Your task to perform on an android device: Open maps Image 0: 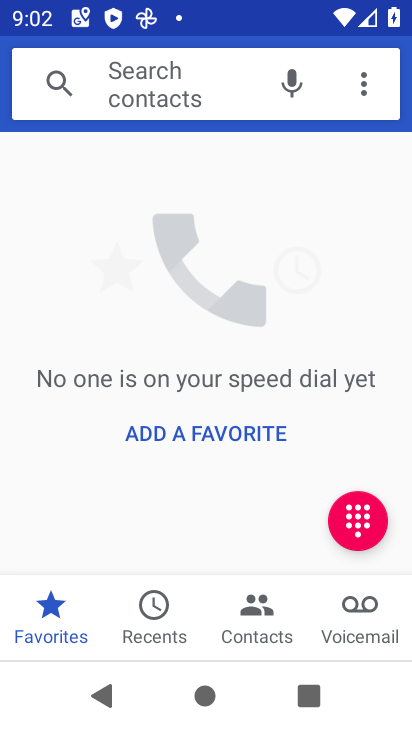
Step 0: drag from (228, 524) to (328, 231)
Your task to perform on an android device: Open maps Image 1: 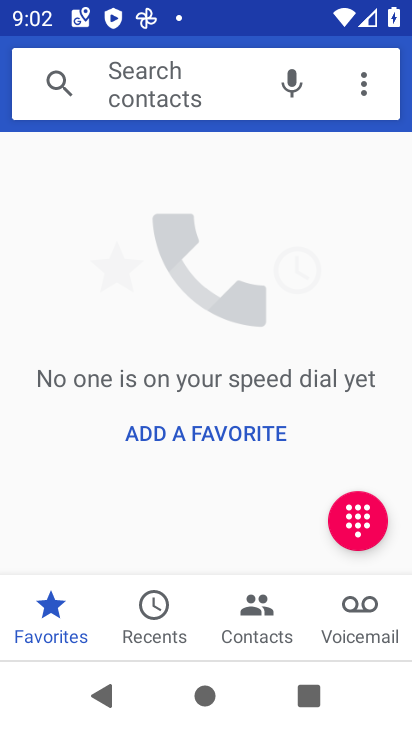
Step 1: press home button
Your task to perform on an android device: Open maps Image 2: 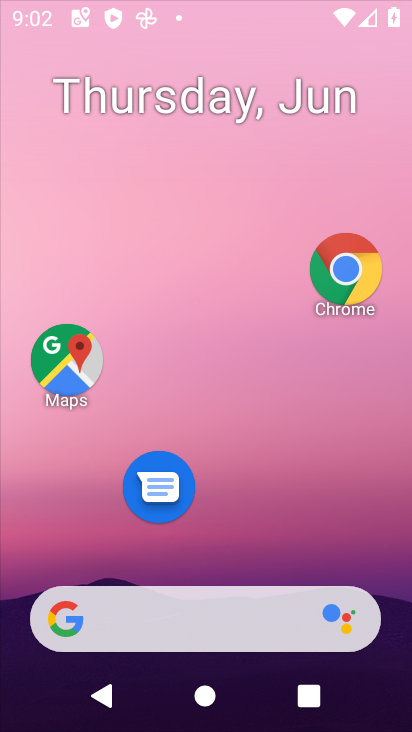
Step 2: drag from (213, 483) to (266, 290)
Your task to perform on an android device: Open maps Image 3: 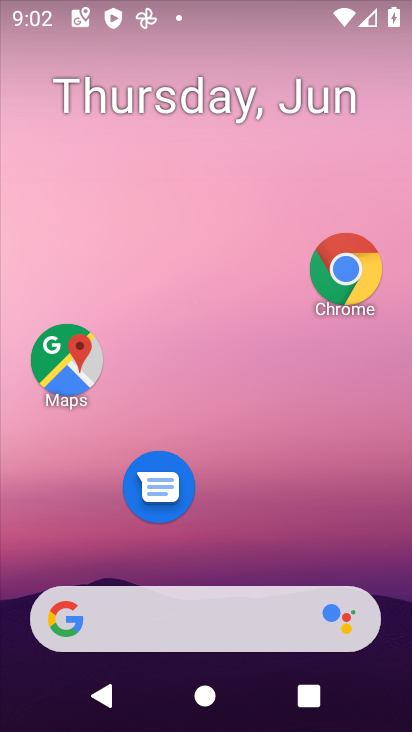
Step 3: drag from (219, 559) to (216, 89)
Your task to perform on an android device: Open maps Image 4: 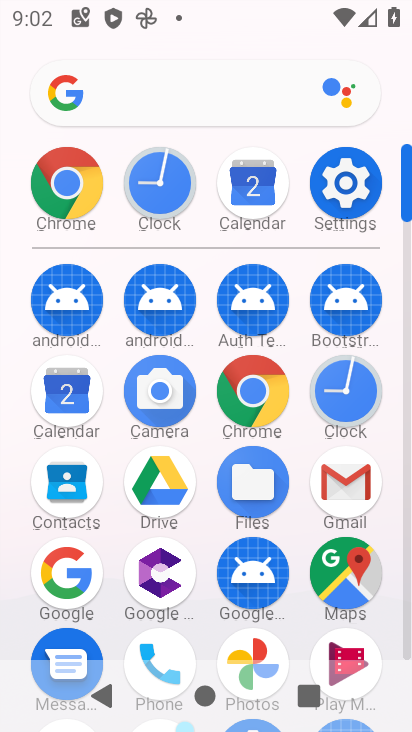
Step 4: drag from (207, 528) to (196, 161)
Your task to perform on an android device: Open maps Image 5: 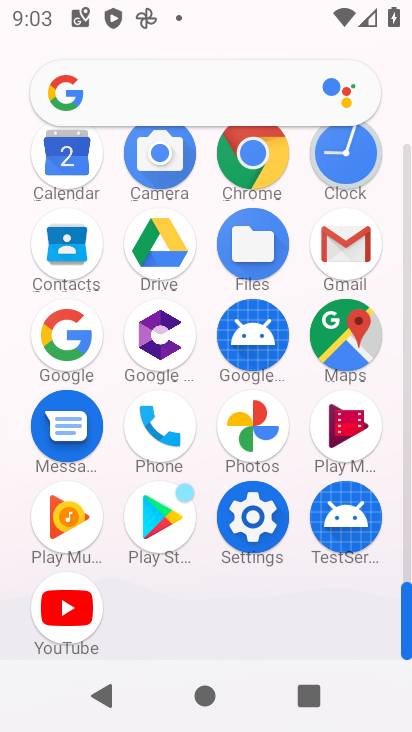
Step 5: click (352, 335)
Your task to perform on an android device: Open maps Image 6: 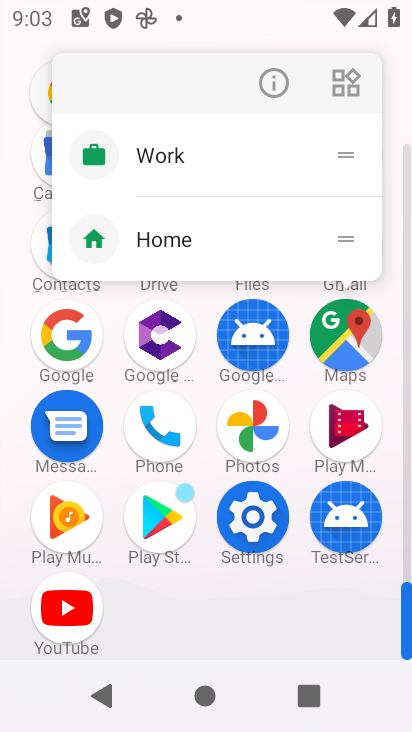
Step 6: click (256, 87)
Your task to perform on an android device: Open maps Image 7: 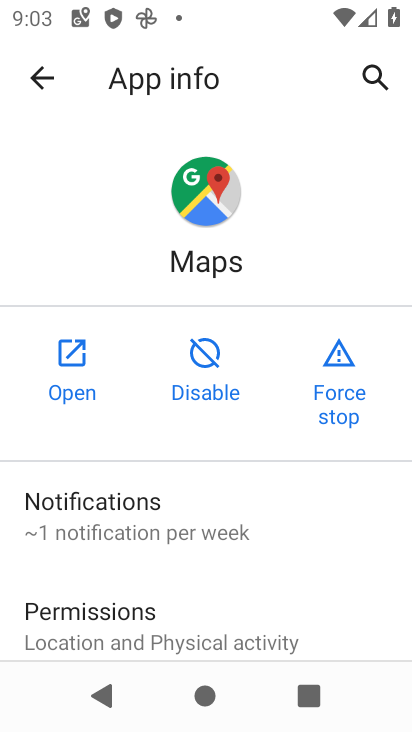
Step 7: click (81, 345)
Your task to perform on an android device: Open maps Image 8: 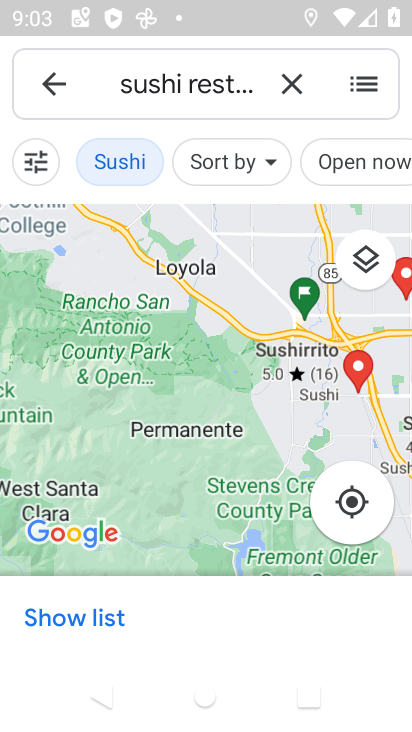
Step 8: drag from (212, 320) to (205, 247)
Your task to perform on an android device: Open maps Image 9: 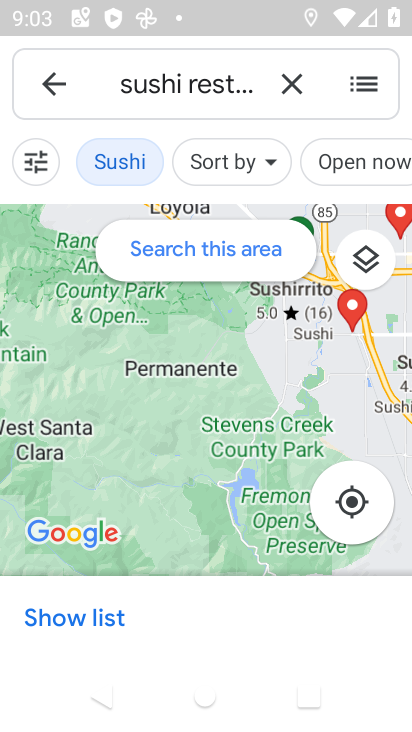
Step 9: drag from (211, 459) to (286, 74)
Your task to perform on an android device: Open maps Image 10: 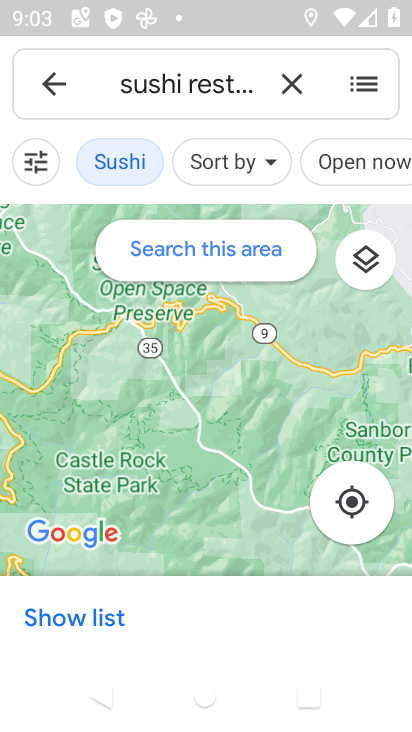
Step 10: drag from (213, 289) to (179, 589)
Your task to perform on an android device: Open maps Image 11: 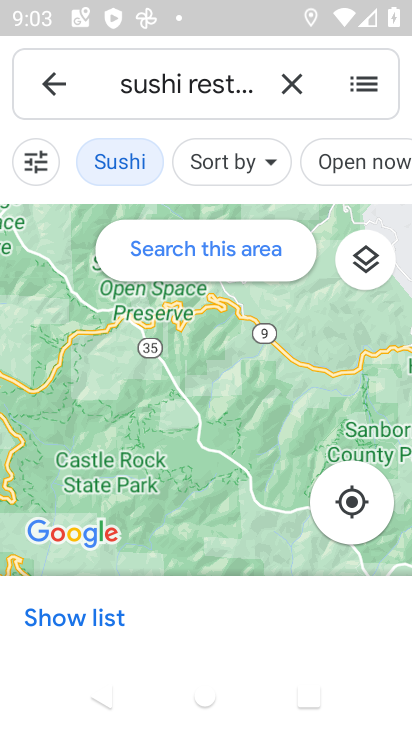
Step 11: drag from (213, 300) to (230, 525)
Your task to perform on an android device: Open maps Image 12: 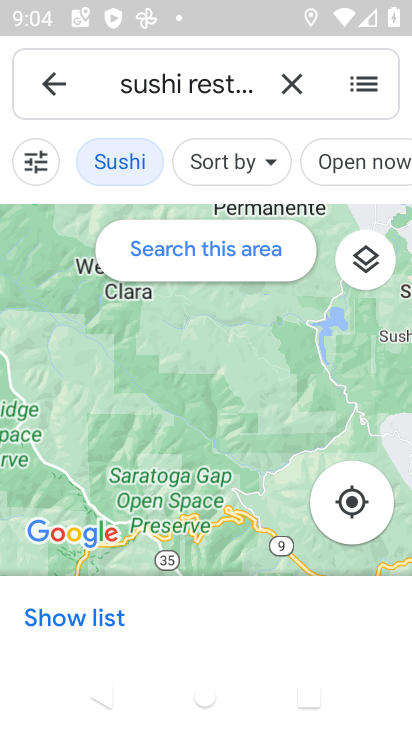
Step 12: click (12, 78)
Your task to perform on an android device: Open maps Image 13: 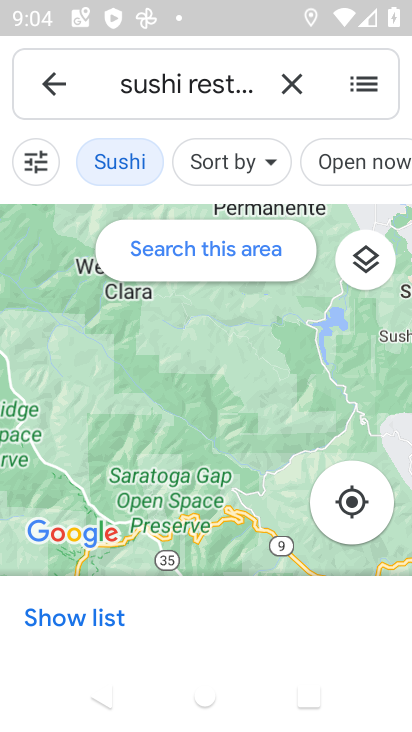
Step 13: click (53, 95)
Your task to perform on an android device: Open maps Image 14: 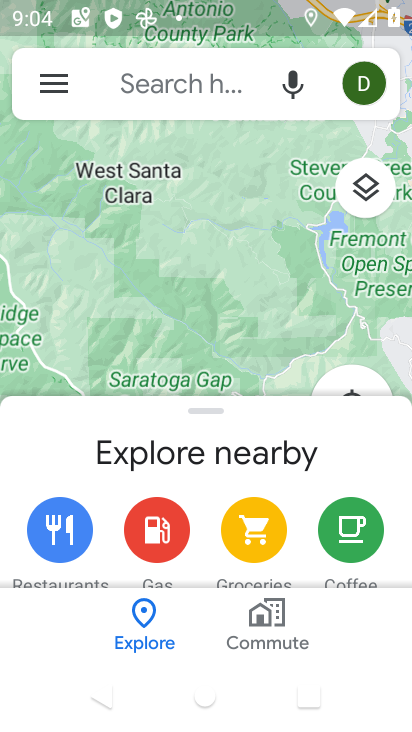
Step 14: task complete